Your task to perform on an android device: Open maps Image 0: 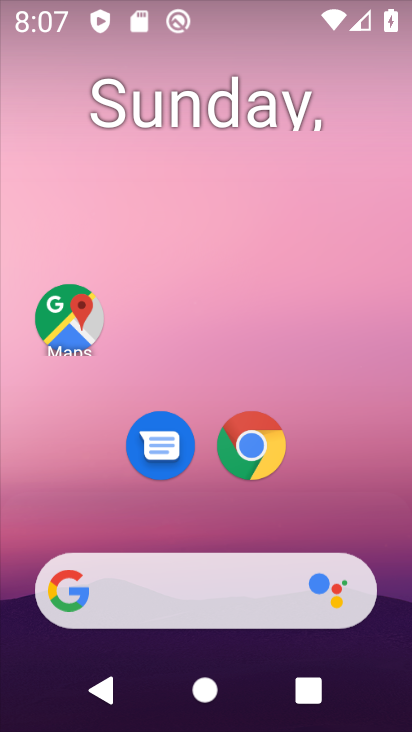
Step 0: click (61, 318)
Your task to perform on an android device: Open maps Image 1: 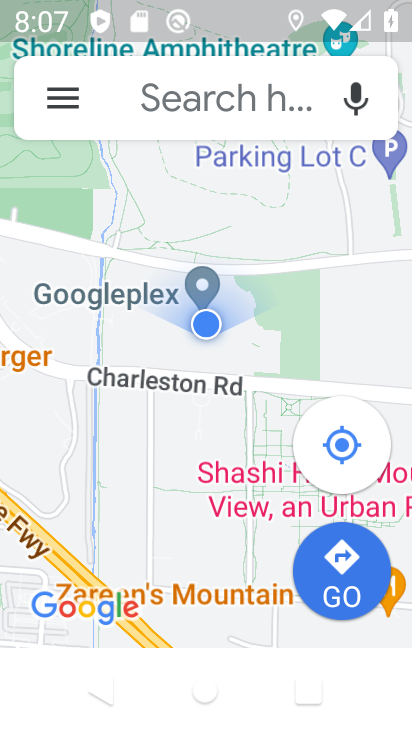
Step 1: task complete